Your task to perform on an android device: Open privacy settings Image 0: 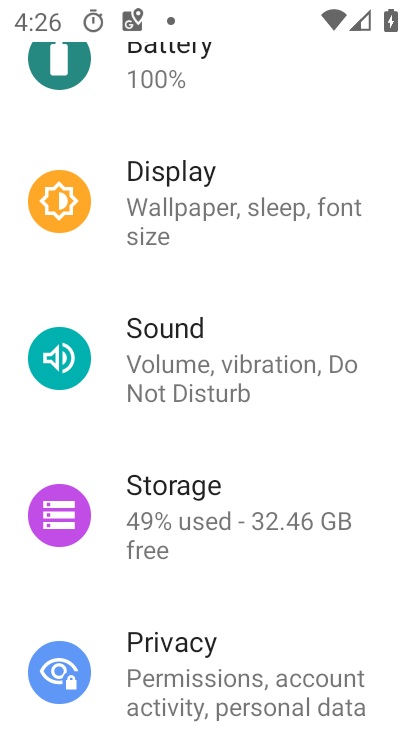
Step 0: click (210, 658)
Your task to perform on an android device: Open privacy settings Image 1: 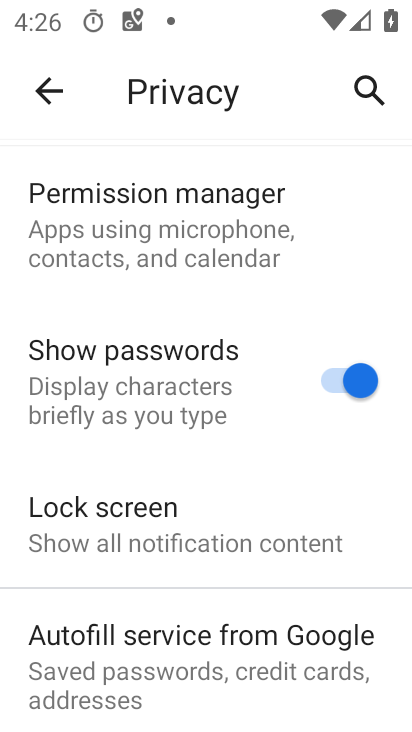
Step 1: task complete